Your task to perform on an android device: Is it going to rain today? Image 0: 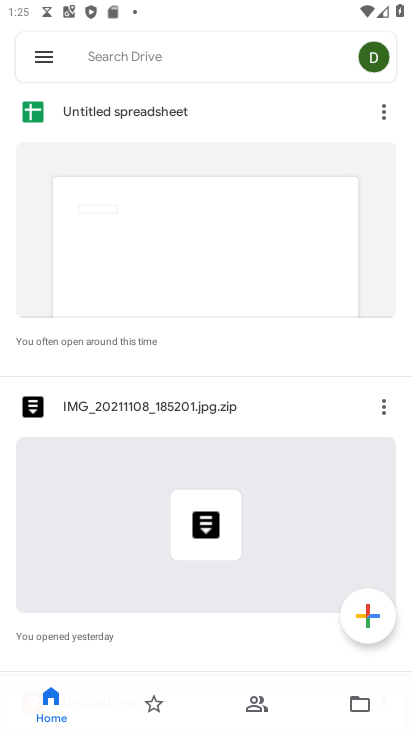
Step 0: press home button
Your task to perform on an android device: Is it going to rain today? Image 1: 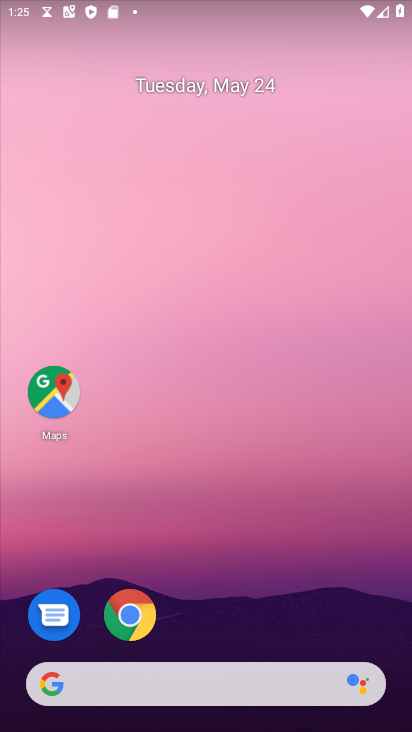
Step 1: drag from (12, 289) to (407, 330)
Your task to perform on an android device: Is it going to rain today? Image 2: 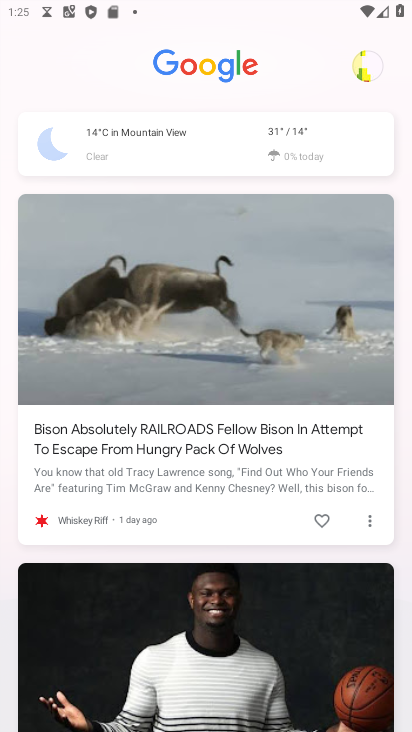
Step 2: click (269, 130)
Your task to perform on an android device: Is it going to rain today? Image 3: 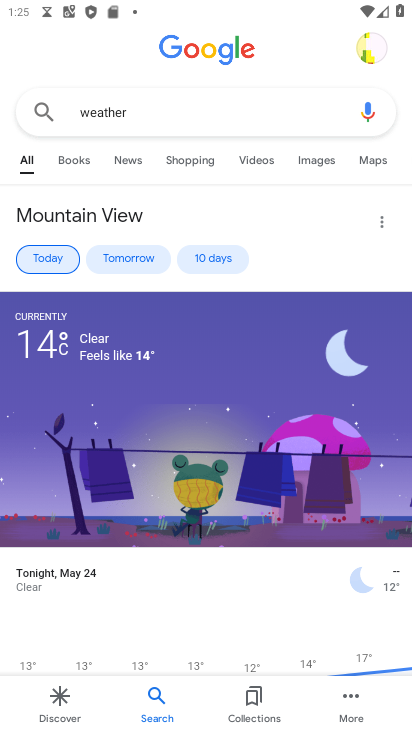
Step 3: task complete